Your task to perform on an android device: set default search engine in the chrome app Image 0: 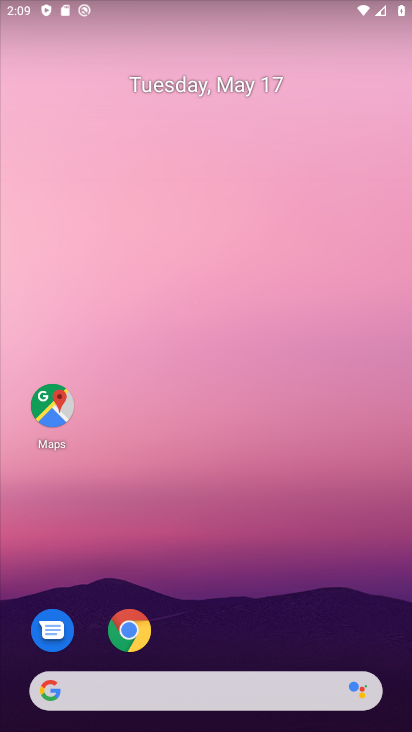
Step 0: drag from (374, 665) to (227, 96)
Your task to perform on an android device: set default search engine in the chrome app Image 1: 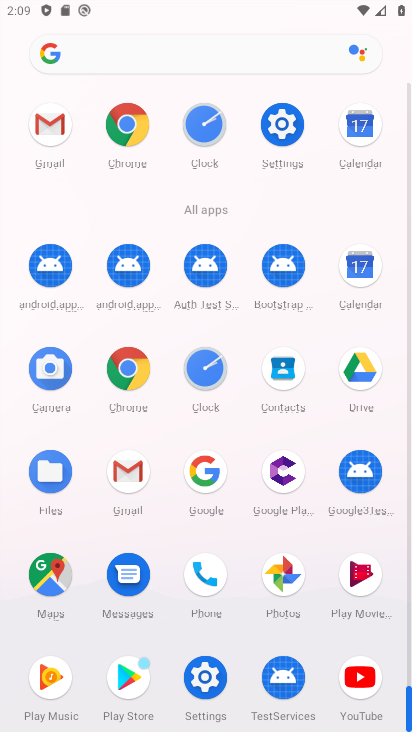
Step 1: click (126, 135)
Your task to perform on an android device: set default search engine in the chrome app Image 2: 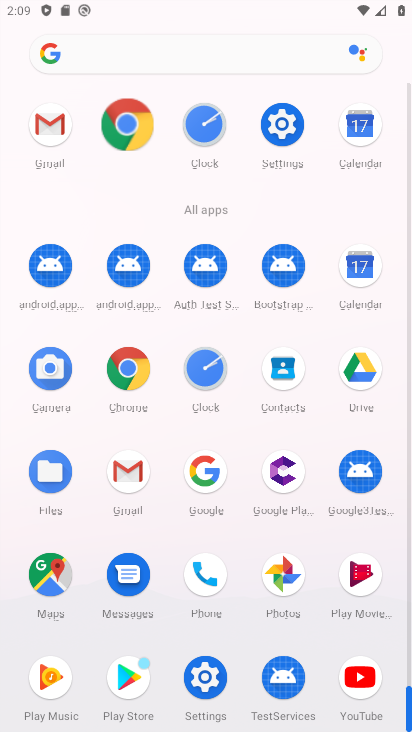
Step 2: click (126, 135)
Your task to perform on an android device: set default search engine in the chrome app Image 3: 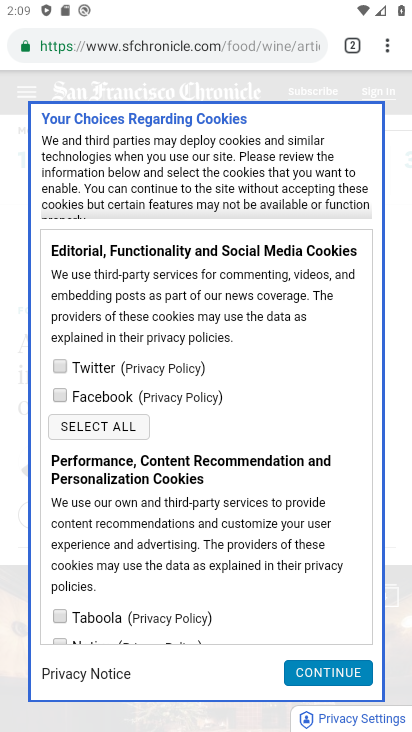
Step 3: click (313, 675)
Your task to perform on an android device: set default search engine in the chrome app Image 4: 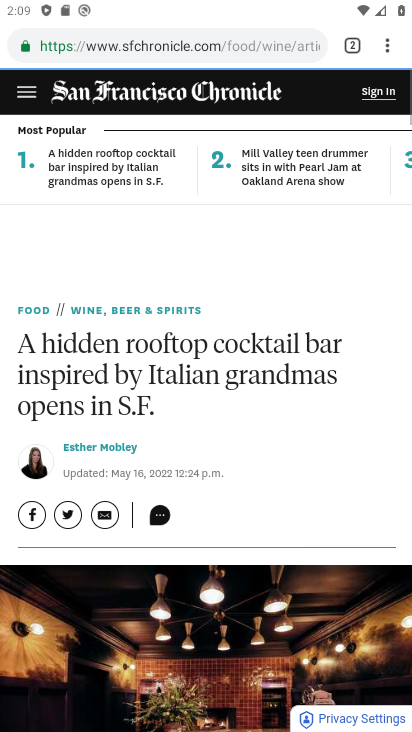
Step 4: drag from (380, 45) to (232, 531)
Your task to perform on an android device: set default search engine in the chrome app Image 5: 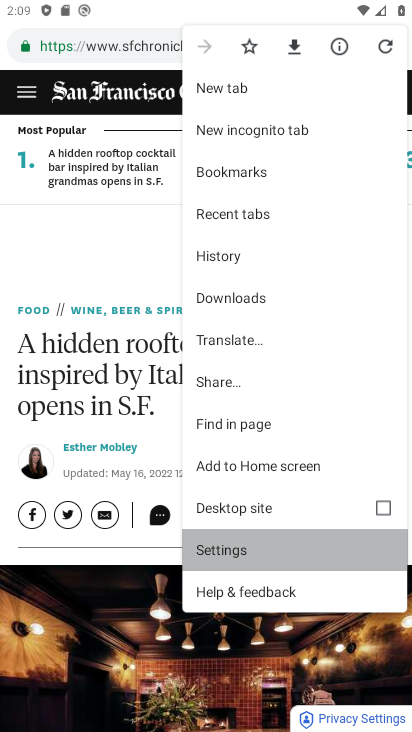
Step 5: click (232, 532)
Your task to perform on an android device: set default search engine in the chrome app Image 6: 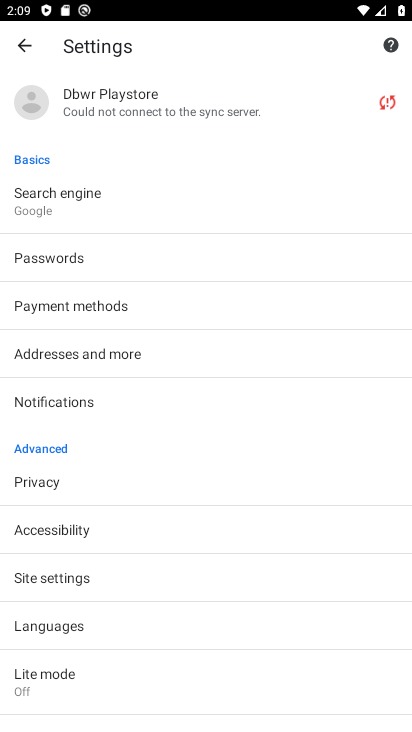
Step 6: click (54, 196)
Your task to perform on an android device: set default search engine in the chrome app Image 7: 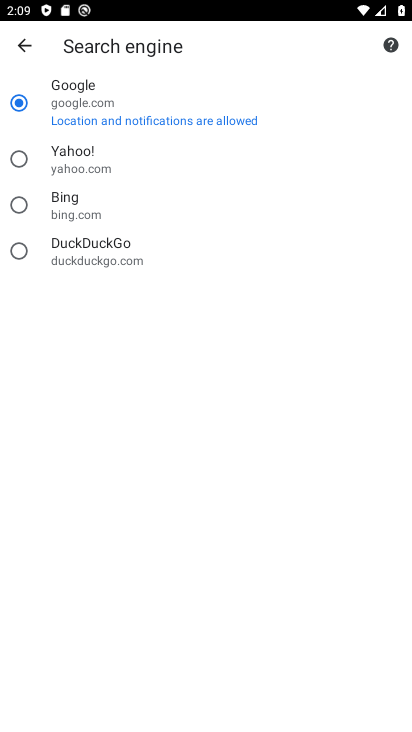
Step 7: click (28, 112)
Your task to perform on an android device: set default search engine in the chrome app Image 8: 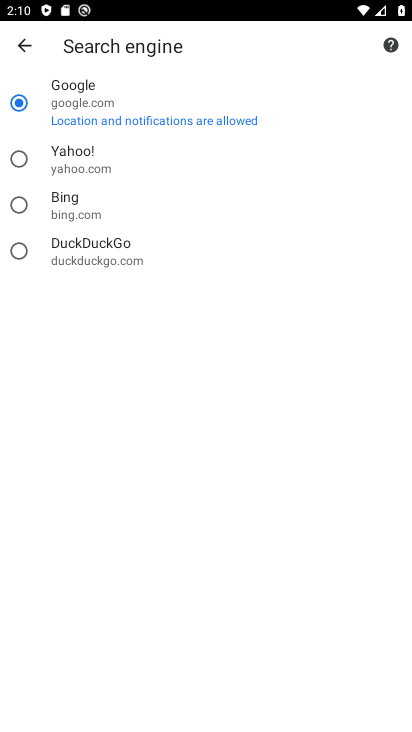
Step 8: click (17, 45)
Your task to perform on an android device: set default search engine in the chrome app Image 9: 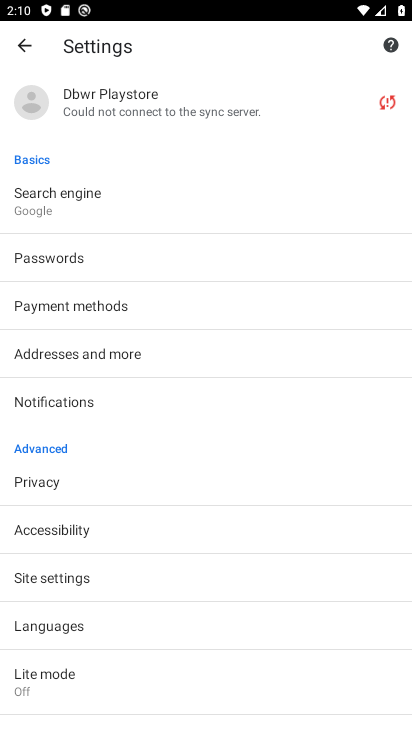
Step 9: click (43, 190)
Your task to perform on an android device: set default search engine in the chrome app Image 10: 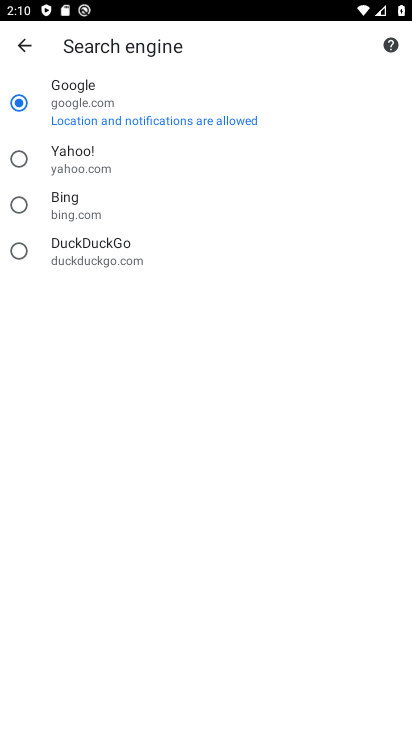
Step 10: click (24, 93)
Your task to perform on an android device: set default search engine in the chrome app Image 11: 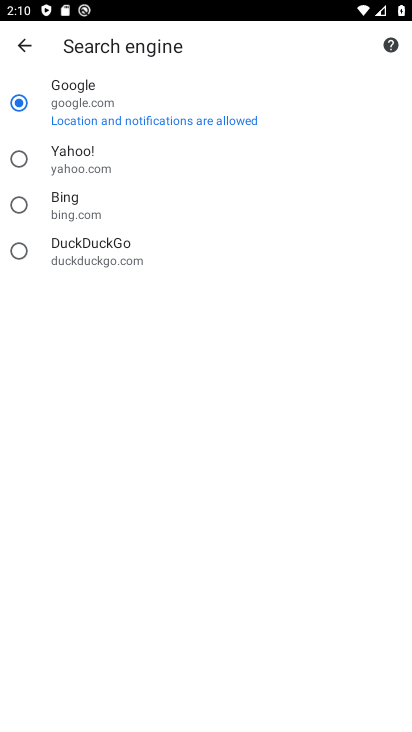
Step 11: task complete